Your task to perform on an android device: turn on wifi Image 0: 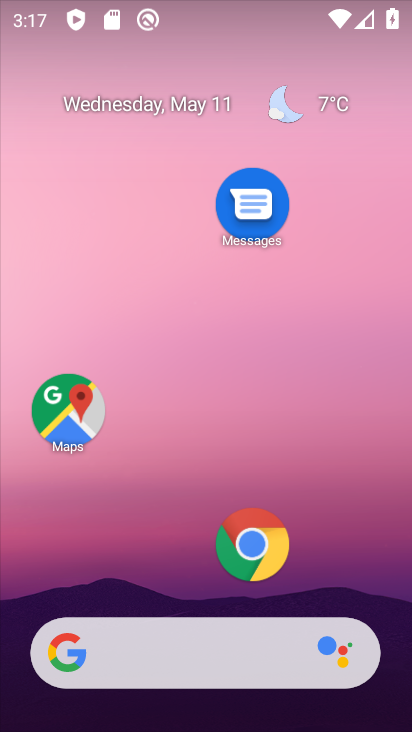
Step 0: drag from (97, 21) to (170, 514)
Your task to perform on an android device: turn on wifi Image 1: 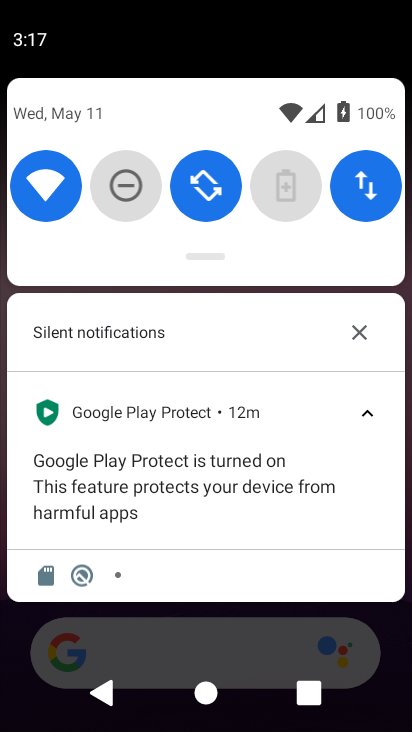
Step 1: task complete